Your task to perform on an android device: Open internet settings Image 0: 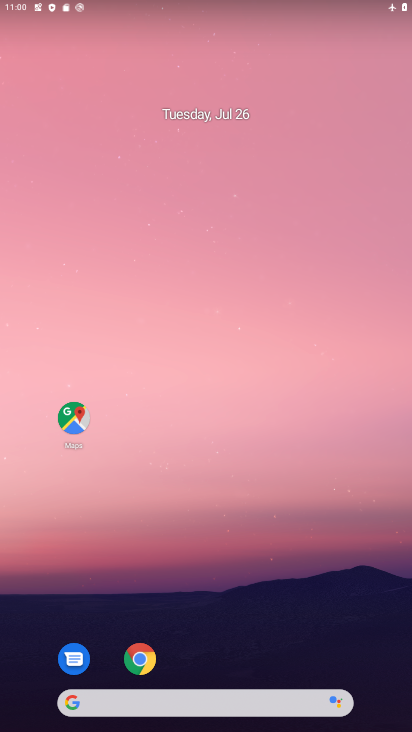
Step 0: drag from (183, 700) to (220, 125)
Your task to perform on an android device: Open internet settings Image 1: 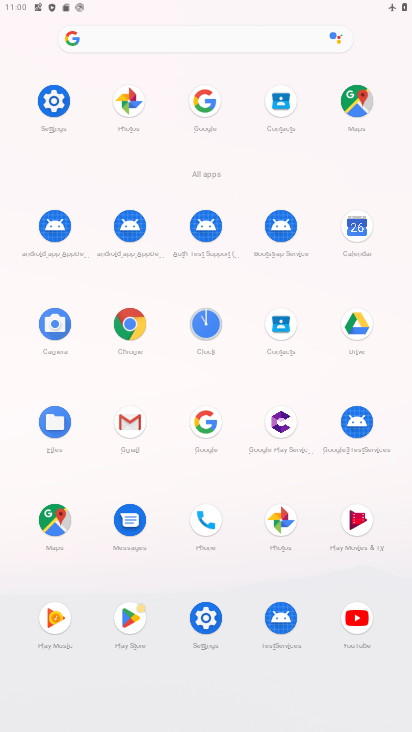
Step 1: click (54, 100)
Your task to perform on an android device: Open internet settings Image 2: 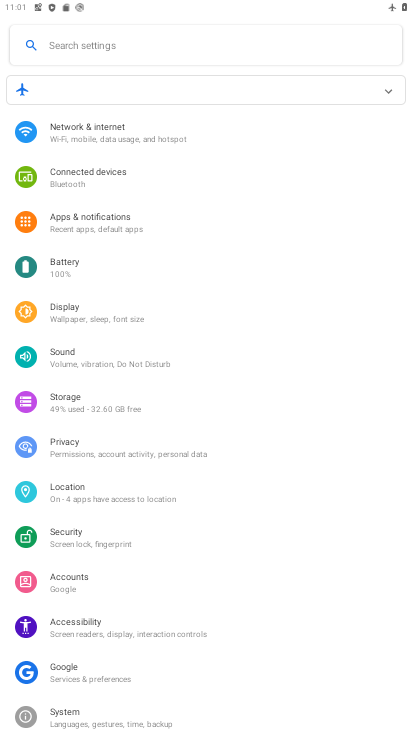
Step 2: click (98, 131)
Your task to perform on an android device: Open internet settings Image 3: 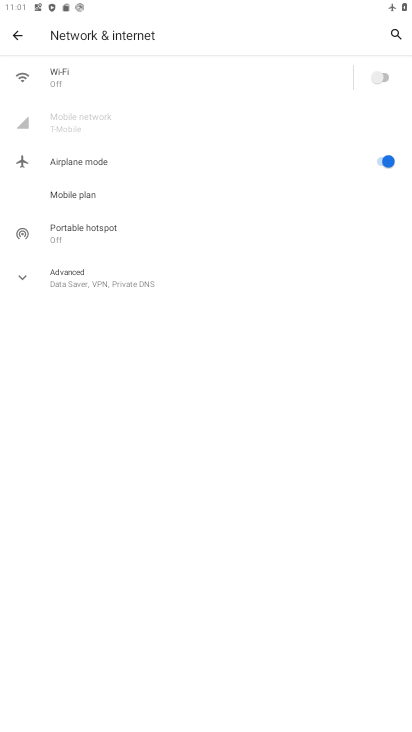
Step 3: task complete